Your task to perform on an android device: Clear the cart on newegg. Image 0: 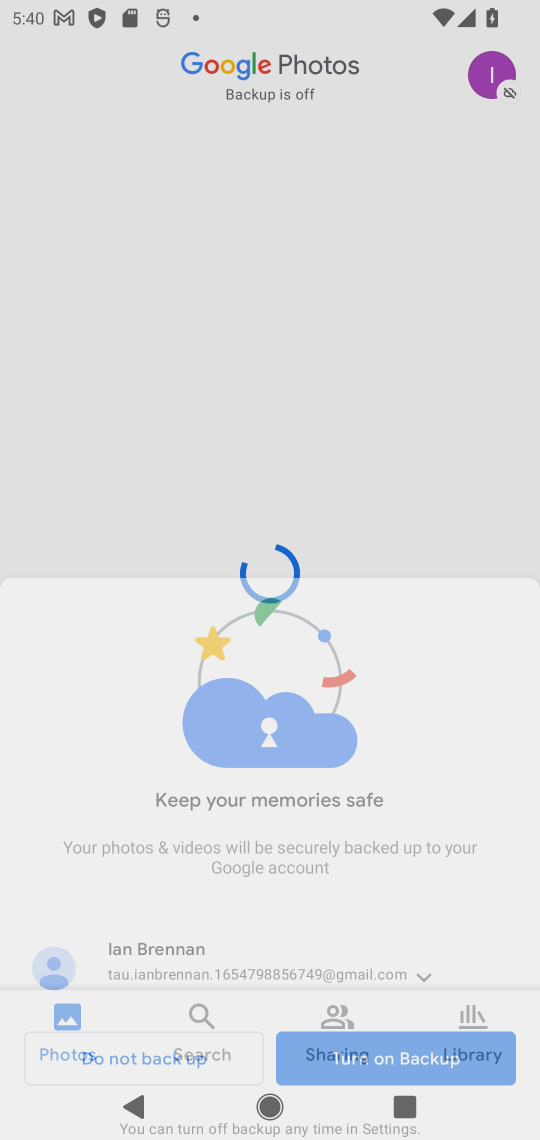
Step 0: press home button
Your task to perform on an android device: Clear the cart on newegg. Image 1: 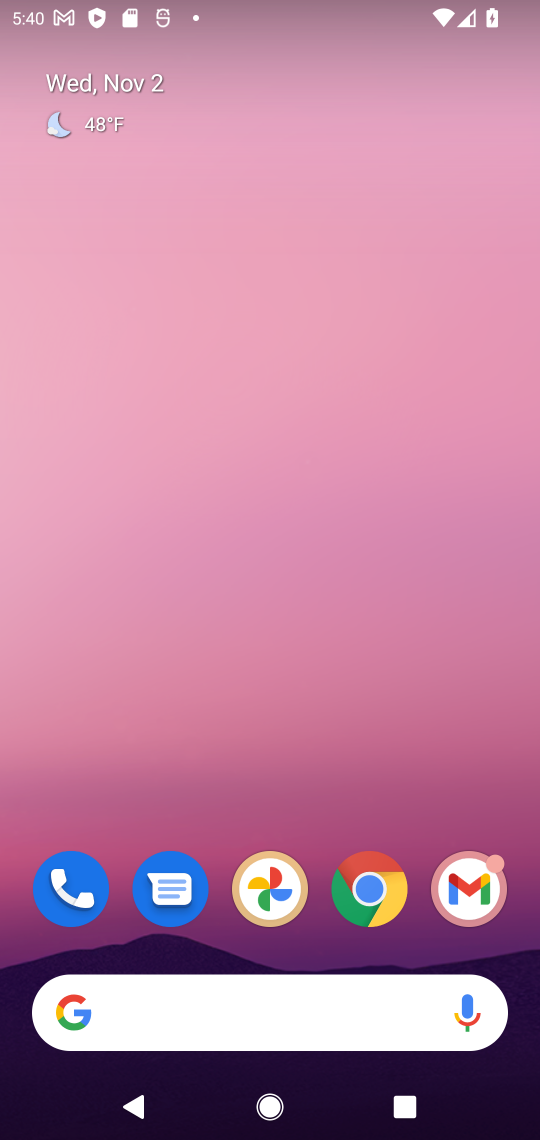
Step 1: click (376, 890)
Your task to perform on an android device: Clear the cart on newegg. Image 2: 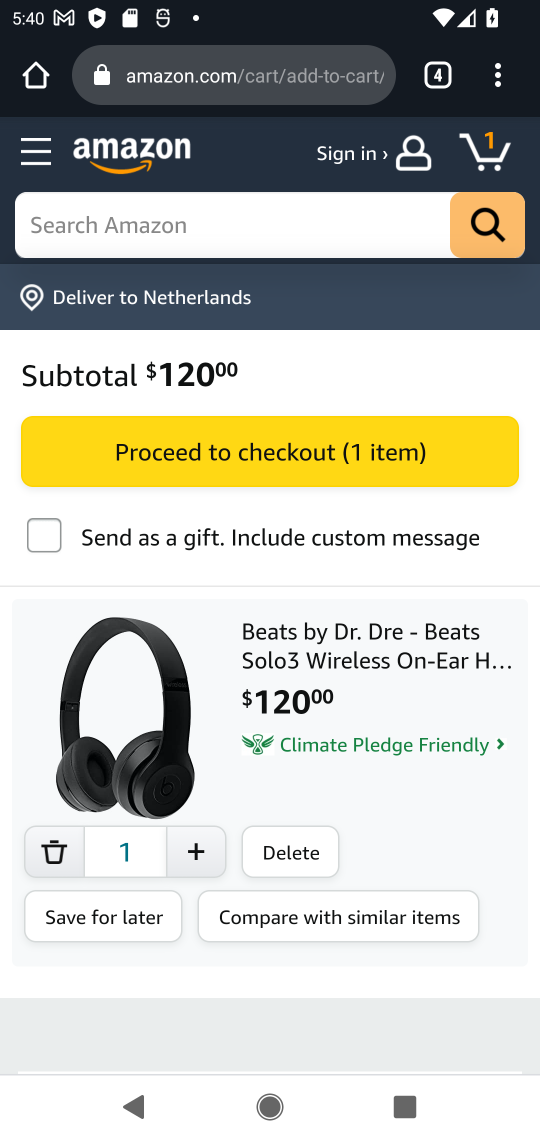
Step 2: click (222, 77)
Your task to perform on an android device: Clear the cart on newegg. Image 3: 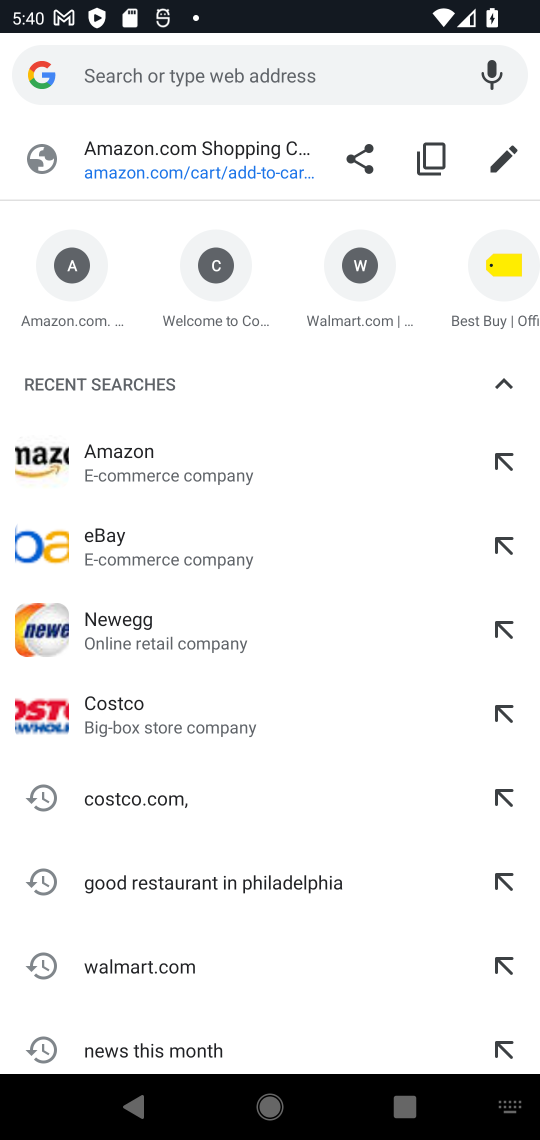
Step 3: click (92, 615)
Your task to perform on an android device: Clear the cart on newegg. Image 4: 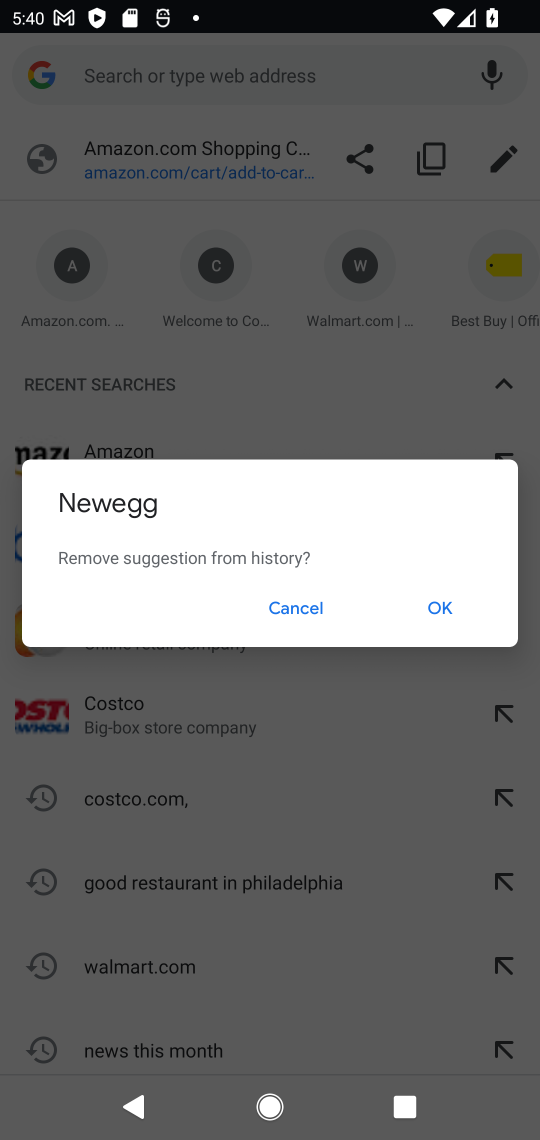
Step 4: click (280, 623)
Your task to perform on an android device: Clear the cart on newegg. Image 5: 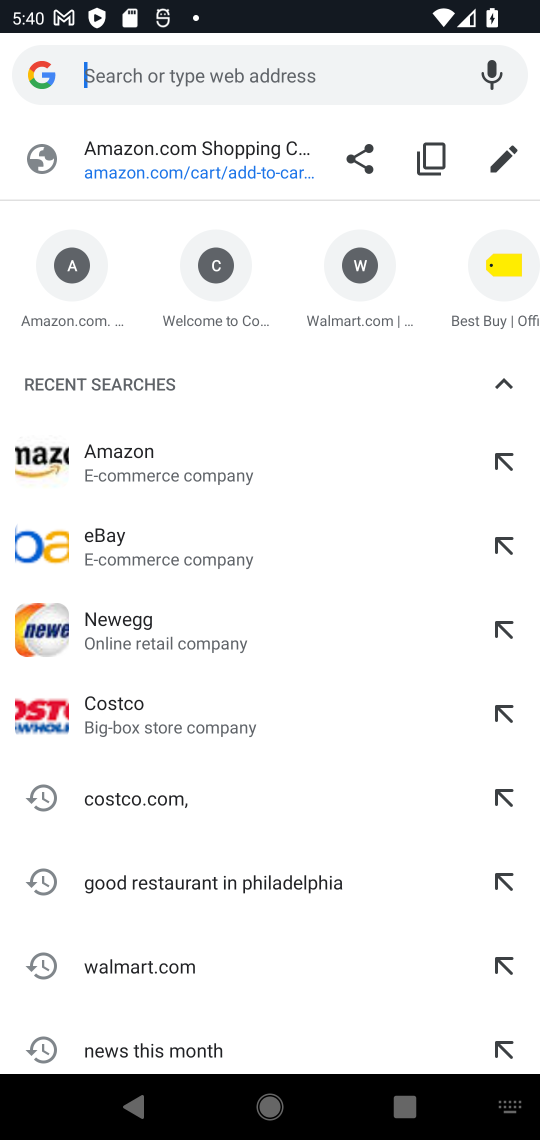
Step 5: click (118, 616)
Your task to perform on an android device: Clear the cart on newegg. Image 6: 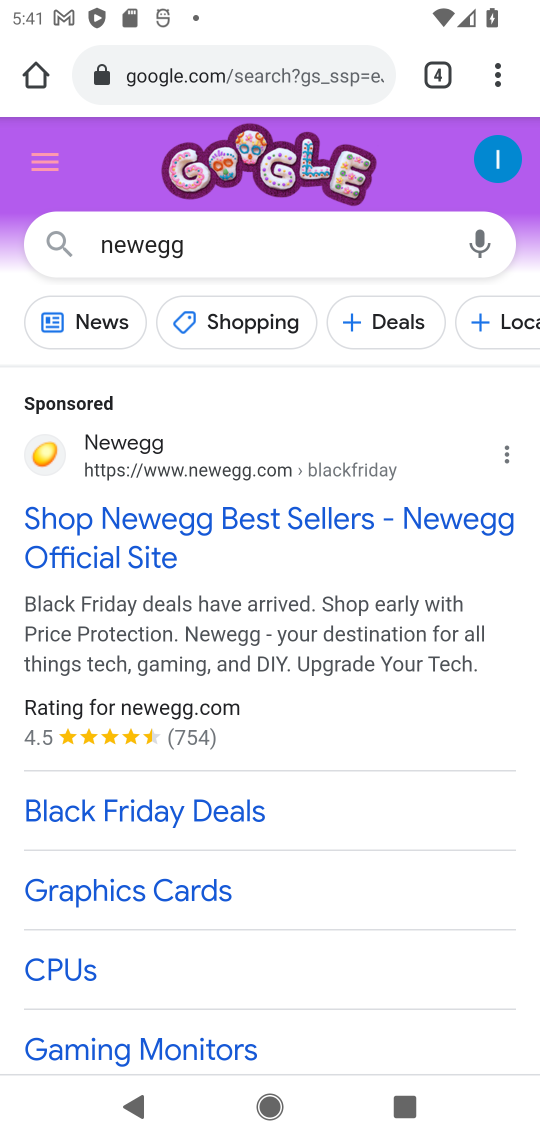
Step 6: click (210, 507)
Your task to perform on an android device: Clear the cart on newegg. Image 7: 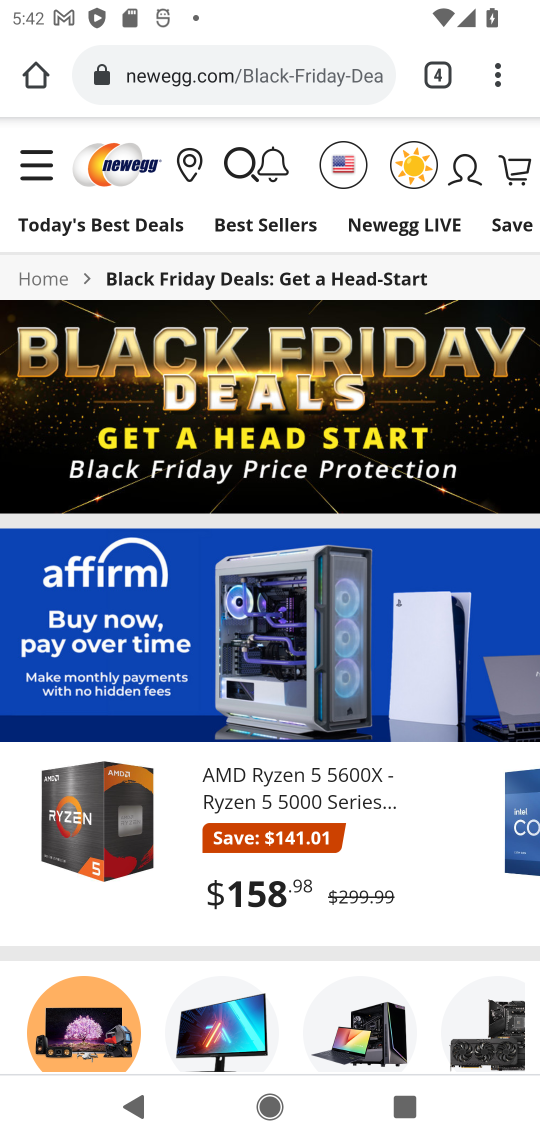
Step 7: click (515, 169)
Your task to perform on an android device: Clear the cart on newegg. Image 8: 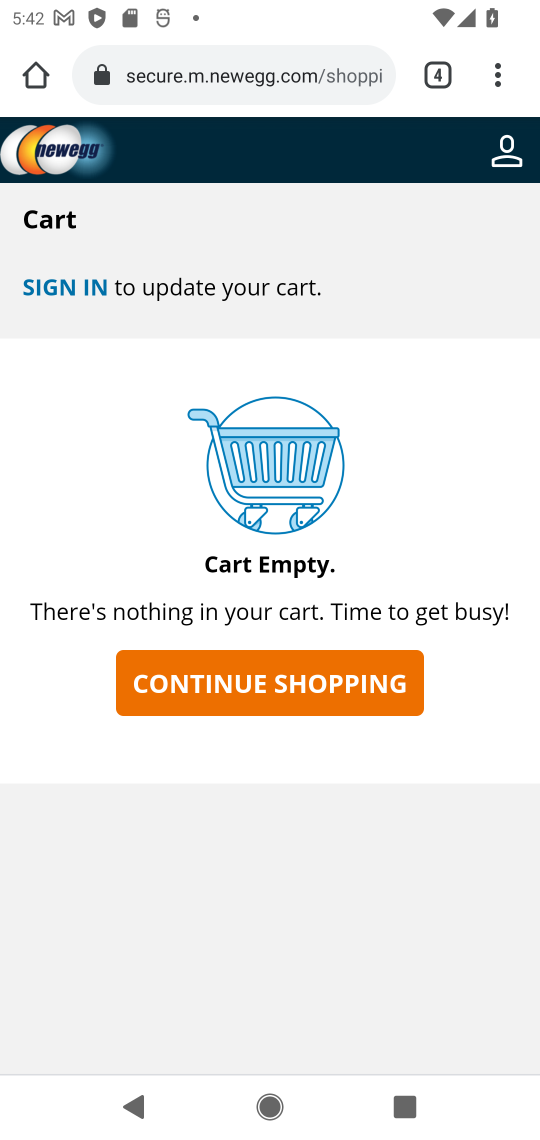
Step 8: task complete